Your task to perform on an android device: Open calendar and show me the second week of next month Image 0: 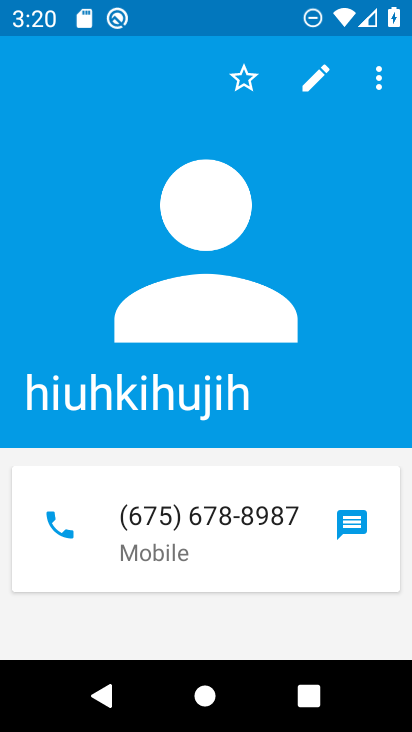
Step 0: press home button
Your task to perform on an android device: Open calendar and show me the second week of next month Image 1: 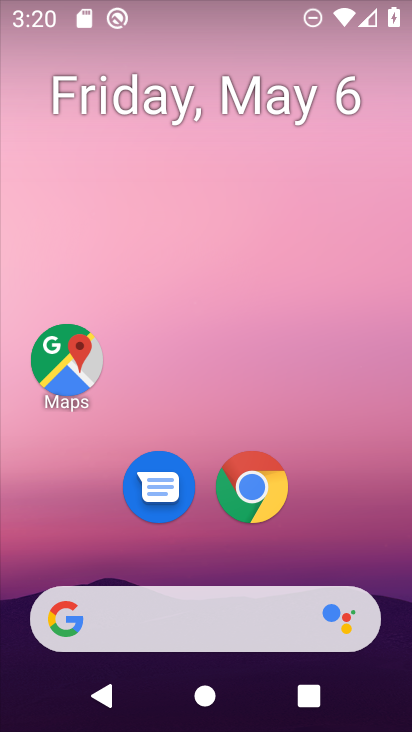
Step 1: drag from (323, 561) to (330, 72)
Your task to perform on an android device: Open calendar and show me the second week of next month Image 2: 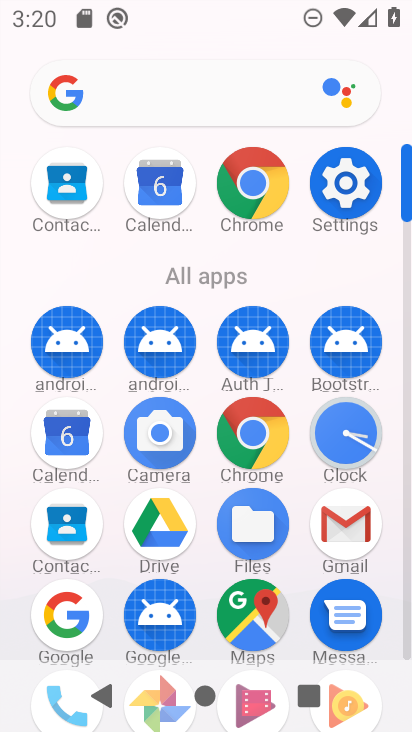
Step 2: click (54, 447)
Your task to perform on an android device: Open calendar and show me the second week of next month Image 3: 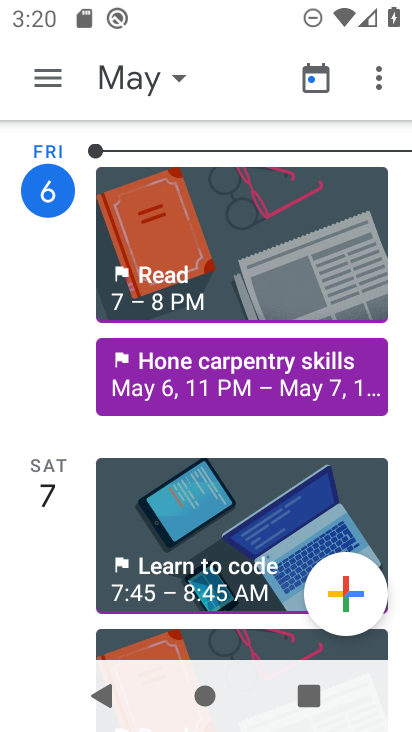
Step 3: click (143, 84)
Your task to perform on an android device: Open calendar and show me the second week of next month Image 4: 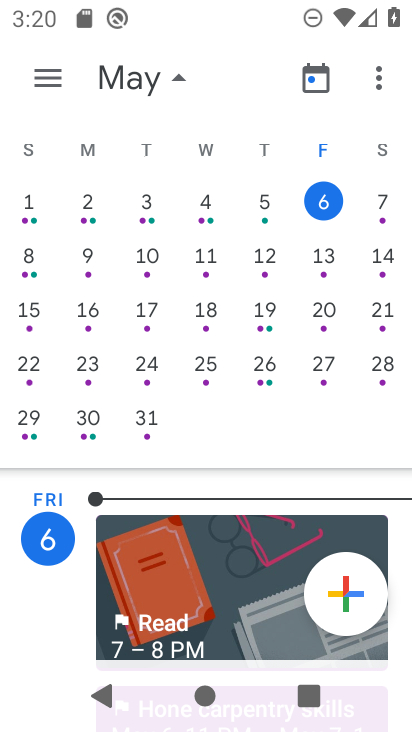
Step 4: drag from (373, 260) to (10, 333)
Your task to perform on an android device: Open calendar and show me the second week of next month Image 5: 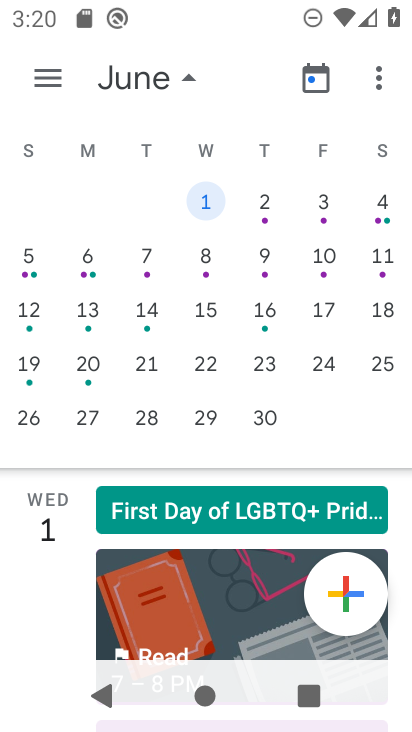
Step 5: click (41, 272)
Your task to perform on an android device: Open calendar and show me the second week of next month Image 6: 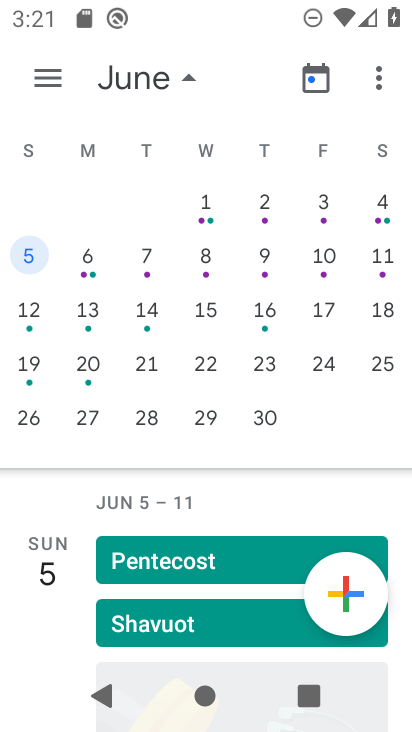
Step 6: task complete